Your task to perform on an android device: change your default location settings in chrome Image 0: 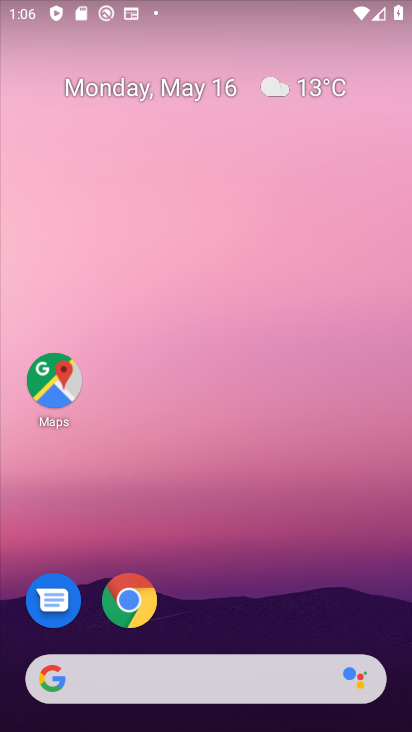
Step 0: drag from (168, 485) to (42, 27)
Your task to perform on an android device: change your default location settings in chrome Image 1: 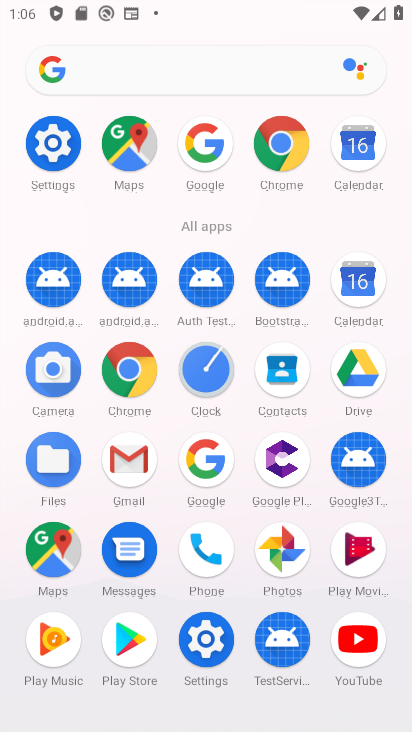
Step 1: click (133, 375)
Your task to perform on an android device: change your default location settings in chrome Image 2: 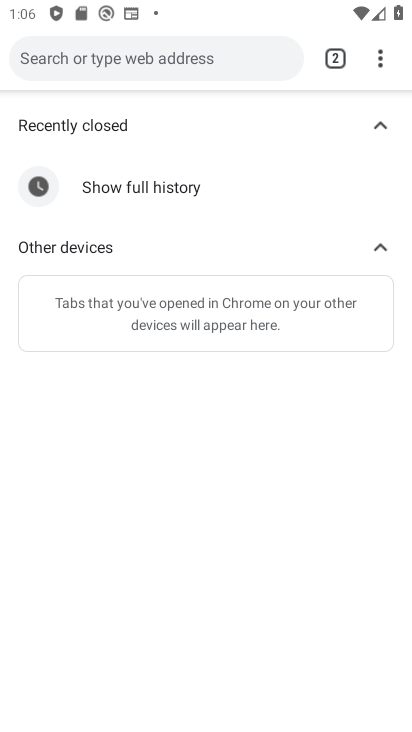
Step 2: click (383, 60)
Your task to perform on an android device: change your default location settings in chrome Image 3: 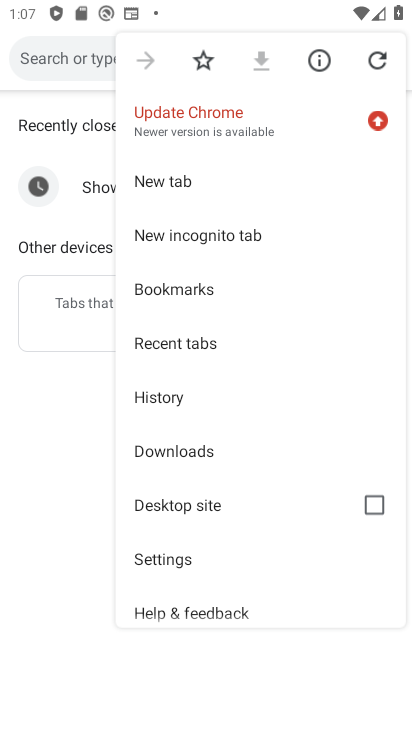
Step 3: click (171, 562)
Your task to perform on an android device: change your default location settings in chrome Image 4: 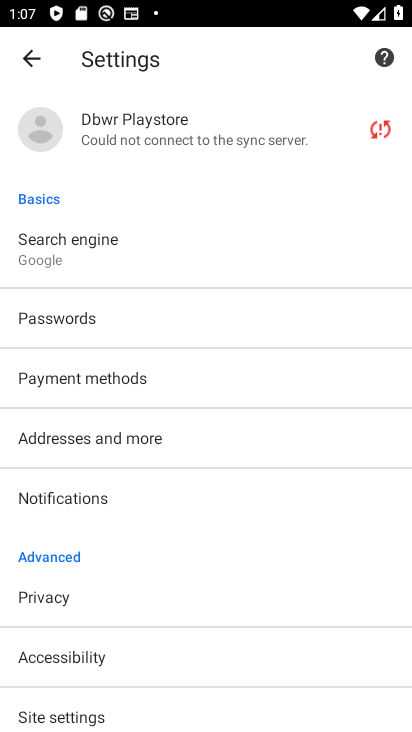
Step 4: click (71, 713)
Your task to perform on an android device: change your default location settings in chrome Image 5: 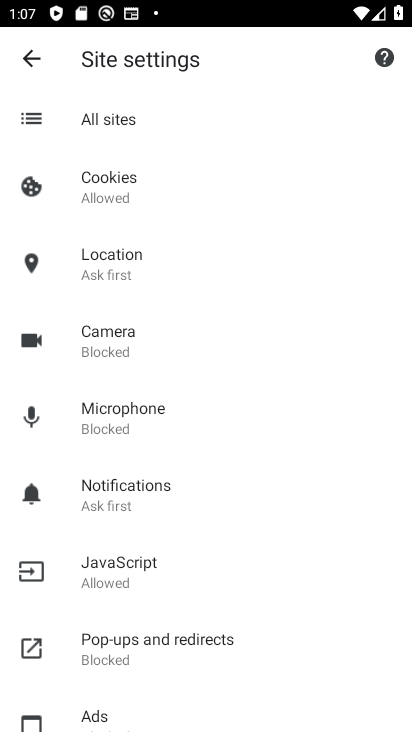
Step 5: click (99, 255)
Your task to perform on an android device: change your default location settings in chrome Image 6: 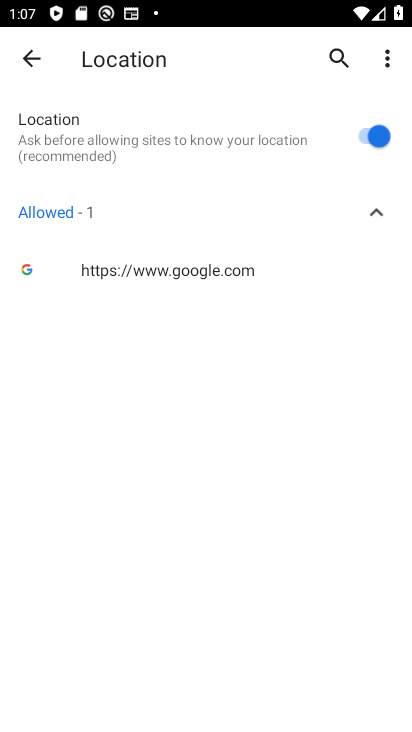
Step 6: click (383, 139)
Your task to perform on an android device: change your default location settings in chrome Image 7: 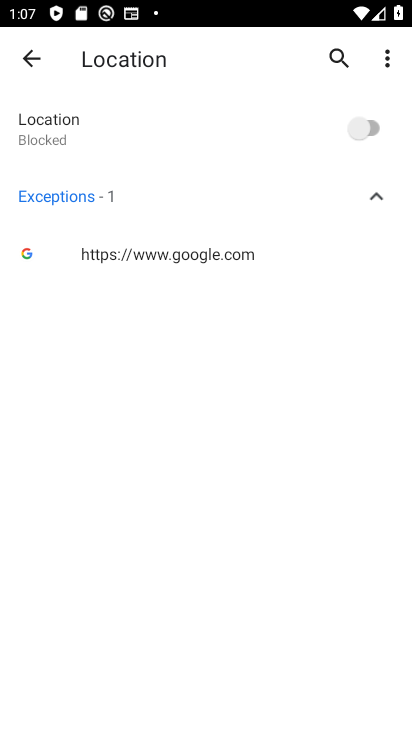
Step 7: task complete